Your task to perform on an android device: search for starred emails in the gmail app Image 0: 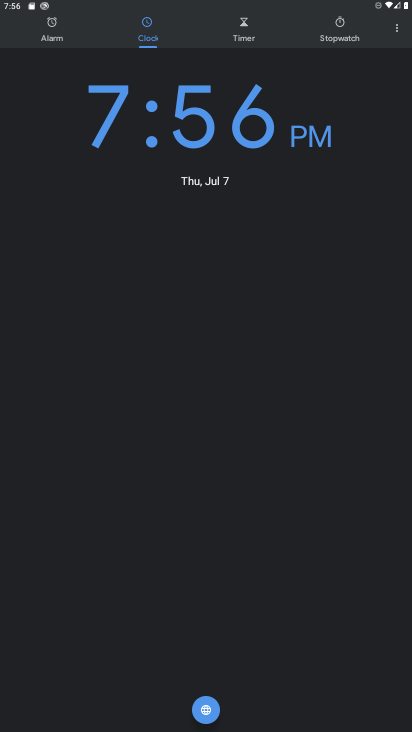
Step 0: press home button
Your task to perform on an android device: search for starred emails in the gmail app Image 1: 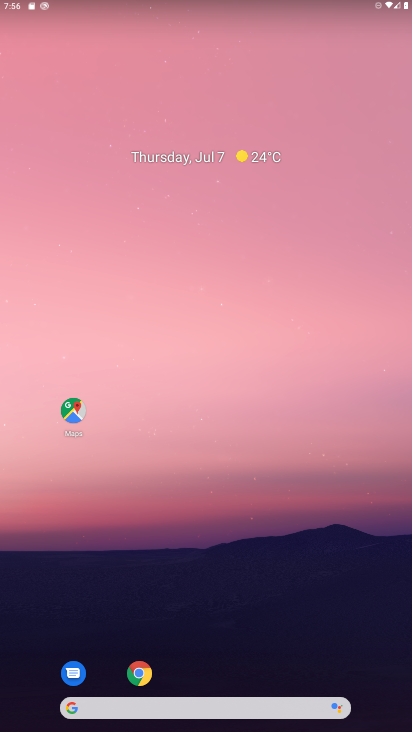
Step 1: drag from (54, 586) to (302, 103)
Your task to perform on an android device: search for starred emails in the gmail app Image 2: 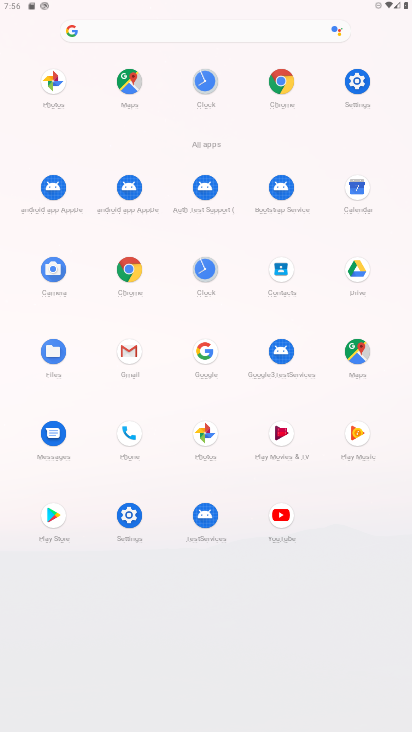
Step 2: click (131, 356)
Your task to perform on an android device: search for starred emails in the gmail app Image 3: 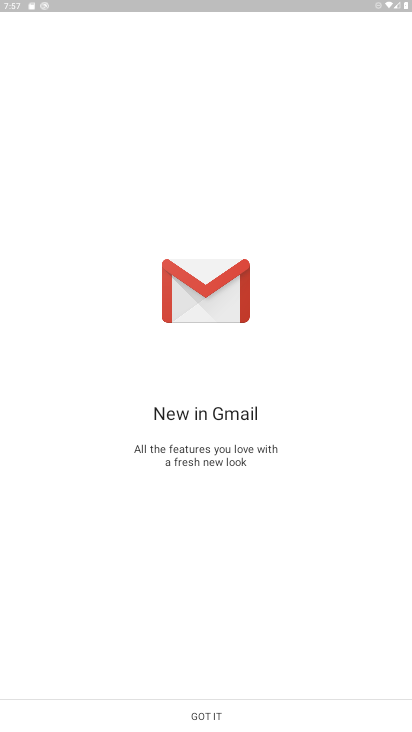
Step 3: click (179, 711)
Your task to perform on an android device: search for starred emails in the gmail app Image 4: 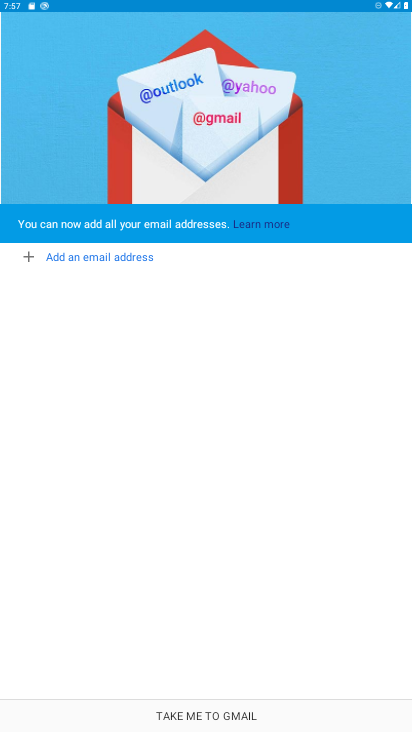
Step 4: click (244, 703)
Your task to perform on an android device: search for starred emails in the gmail app Image 5: 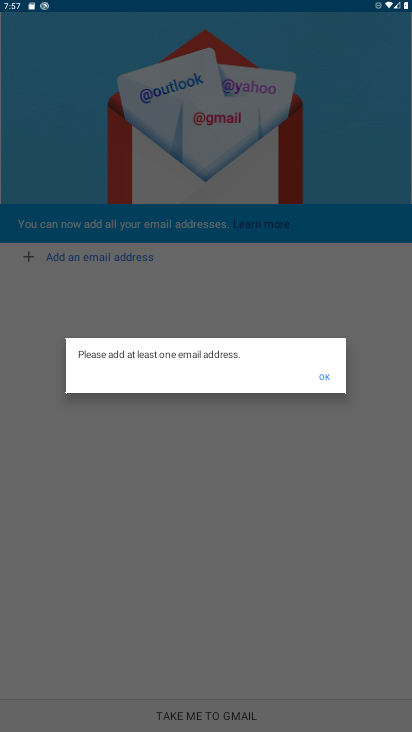
Step 5: click (338, 365)
Your task to perform on an android device: search for starred emails in the gmail app Image 6: 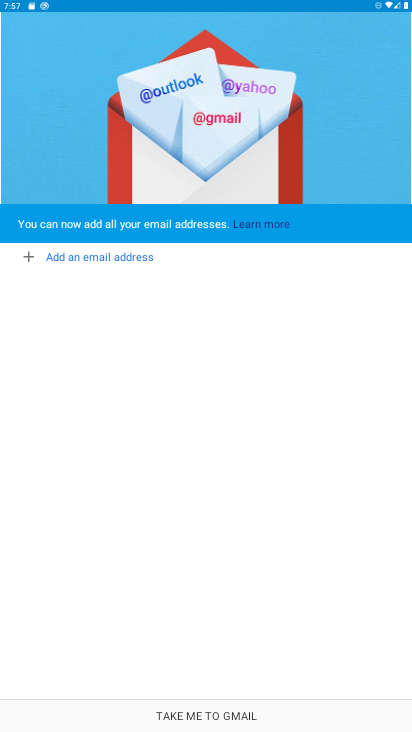
Step 6: click (206, 720)
Your task to perform on an android device: search for starred emails in the gmail app Image 7: 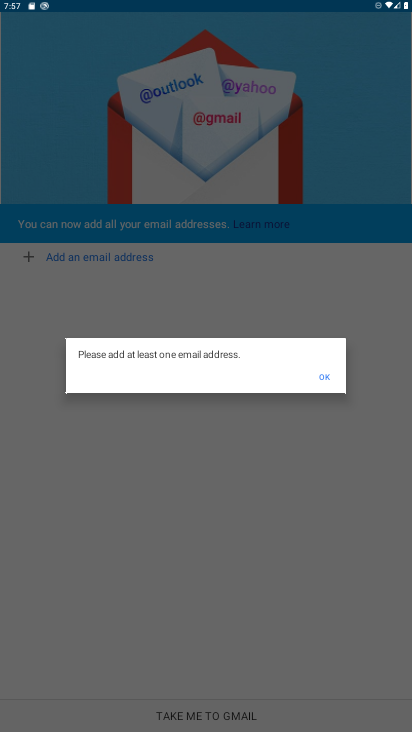
Step 7: click (327, 383)
Your task to perform on an android device: search for starred emails in the gmail app Image 8: 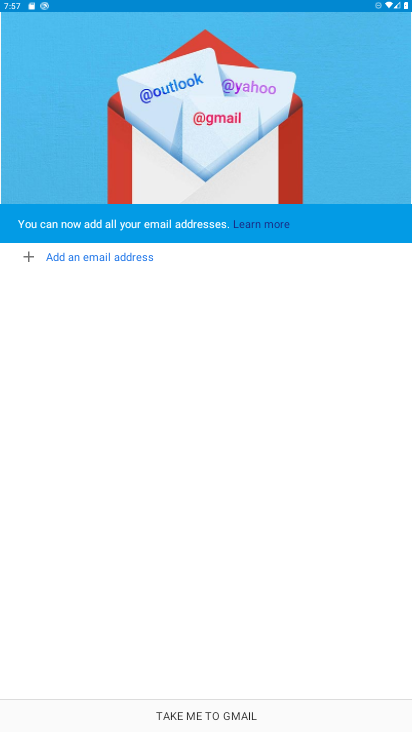
Step 8: task complete